Your task to perform on an android device: Open Google Chrome Image 0: 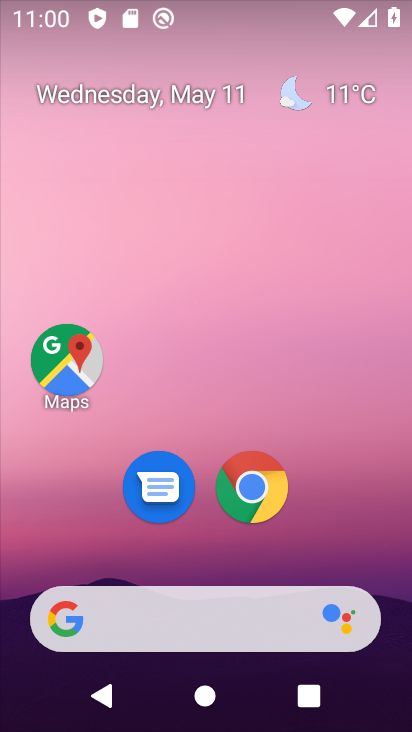
Step 0: click (258, 508)
Your task to perform on an android device: Open Google Chrome Image 1: 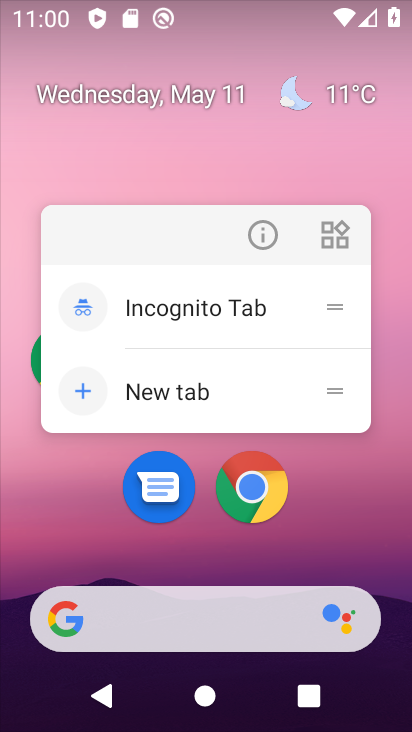
Step 1: click (258, 508)
Your task to perform on an android device: Open Google Chrome Image 2: 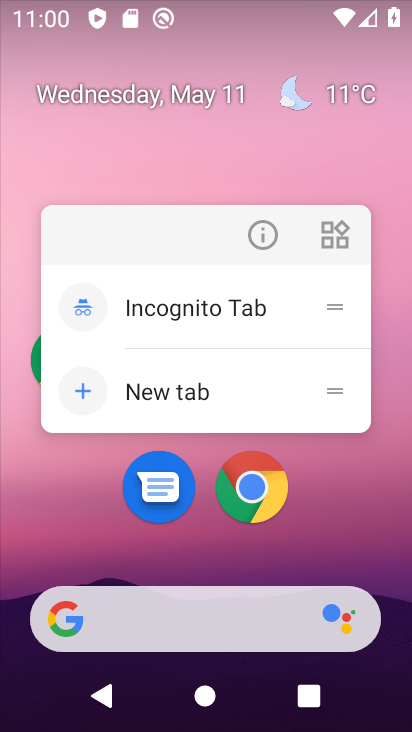
Step 2: click (252, 509)
Your task to perform on an android device: Open Google Chrome Image 3: 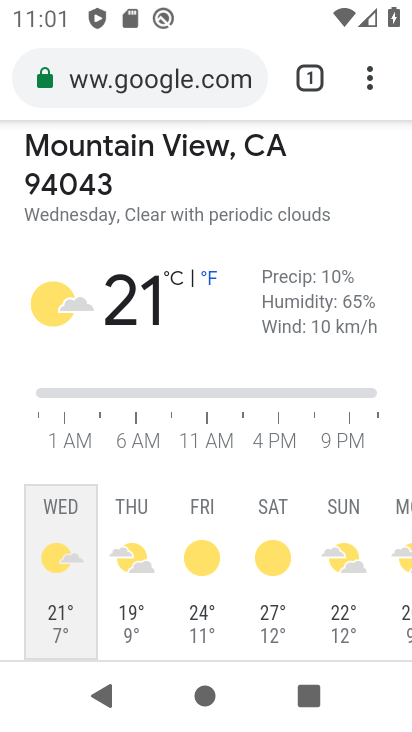
Step 3: task complete